Your task to perform on an android device: Clear the shopping cart on bestbuy.com. Search for beats solo 3 on bestbuy.com, select the first entry, add it to the cart, then select checkout. Image 0: 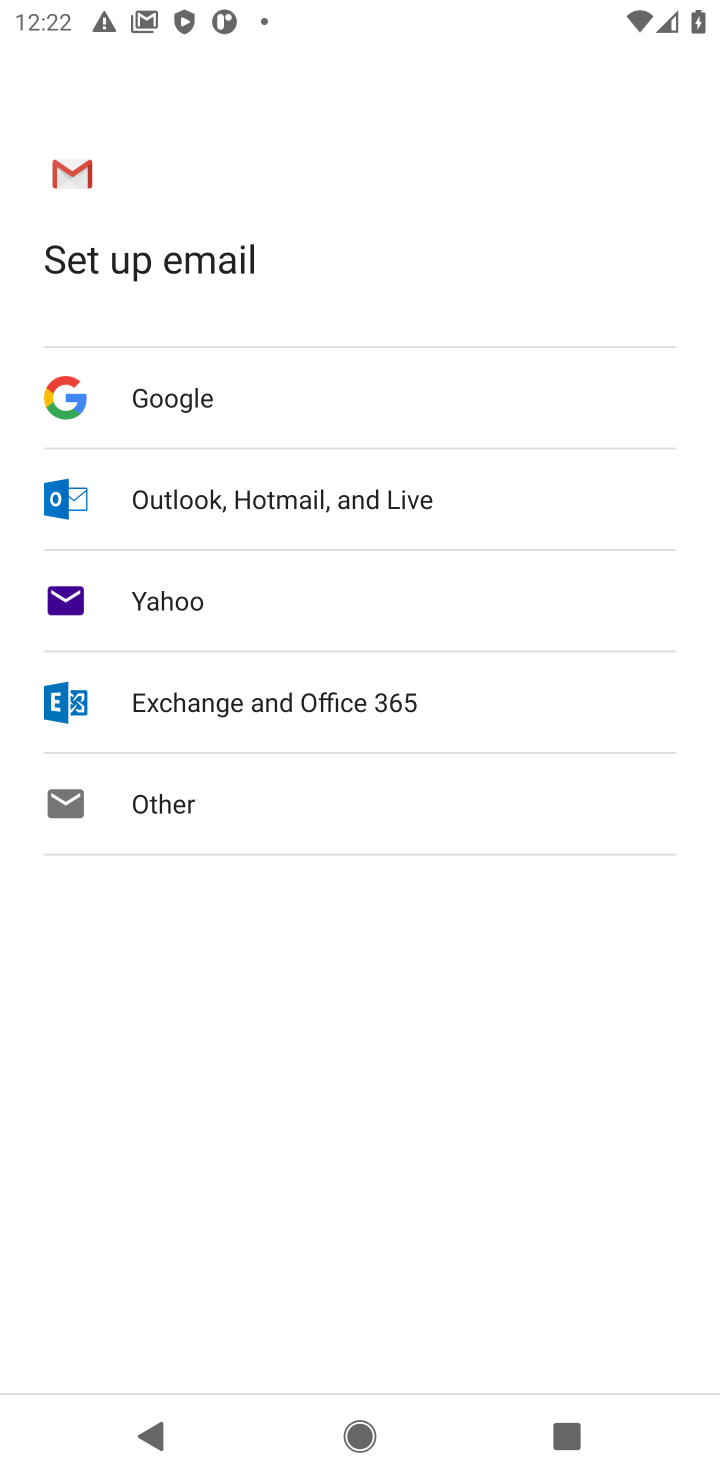
Step 0: press home button
Your task to perform on an android device: Clear the shopping cart on bestbuy.com. Search for beats solo 3 on bestbuy.com, select the first entry, add it to the cart, then select checkout. Image 1: 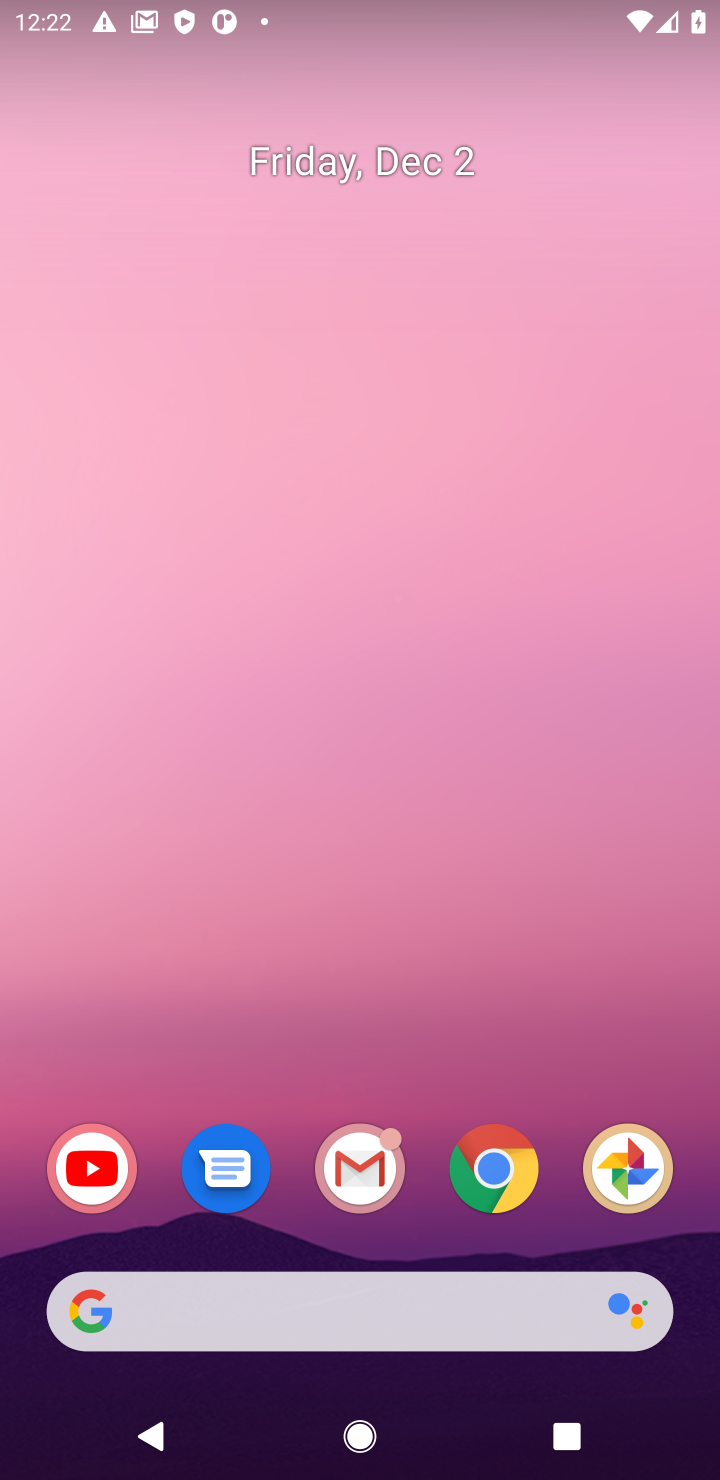
Step 1: click (501, 1189)
Your task to perform on an android device: Clear the shopping cart on bestbuy.com. Search for beats solo 3 on bestbuy.com, select the first entry, add it to the cart, then select checkout. Image 2: 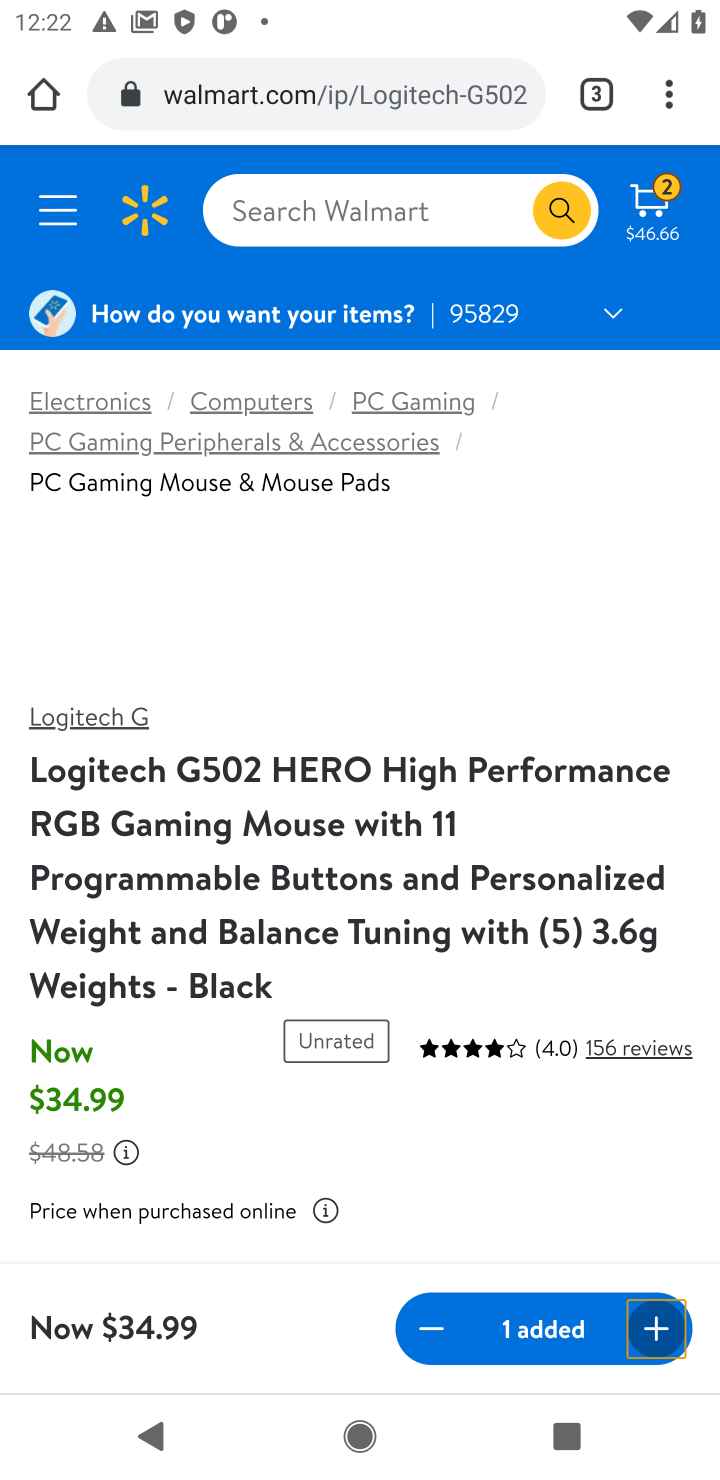
Step 2: click (333, 100)
Your task to perform on an android device: Clear the shopping cart on bestbuy.com. Search for beats solo 3 on bestbuy.com, select the first entry, add it to the cart, then select checkout. Image 3: 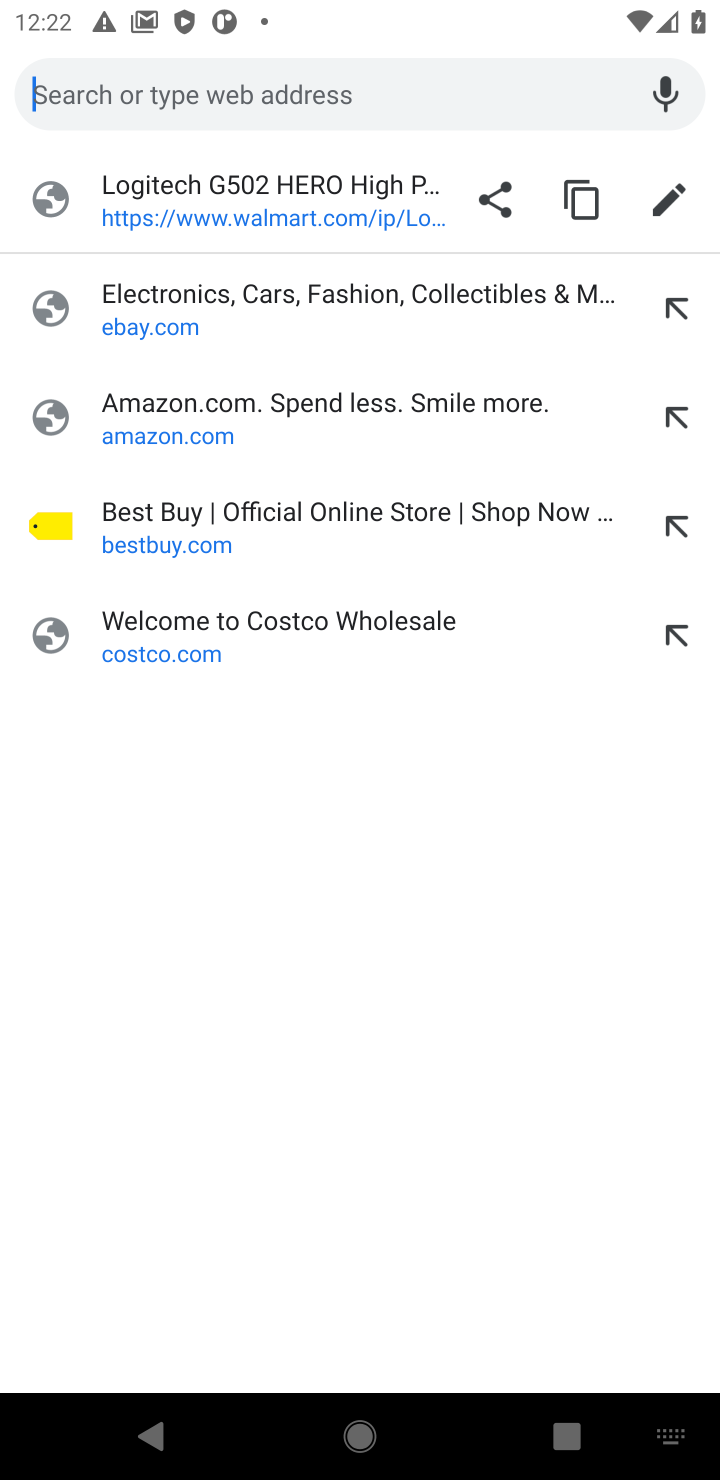
Step 3: click (140, 526)
Your task to perform on an android device: Clear the shopping cart on bestbuy.com. Search for beats solo 3 on bestbuy.com, select the first entry, add it to the cart, then select checkout. Image 4: 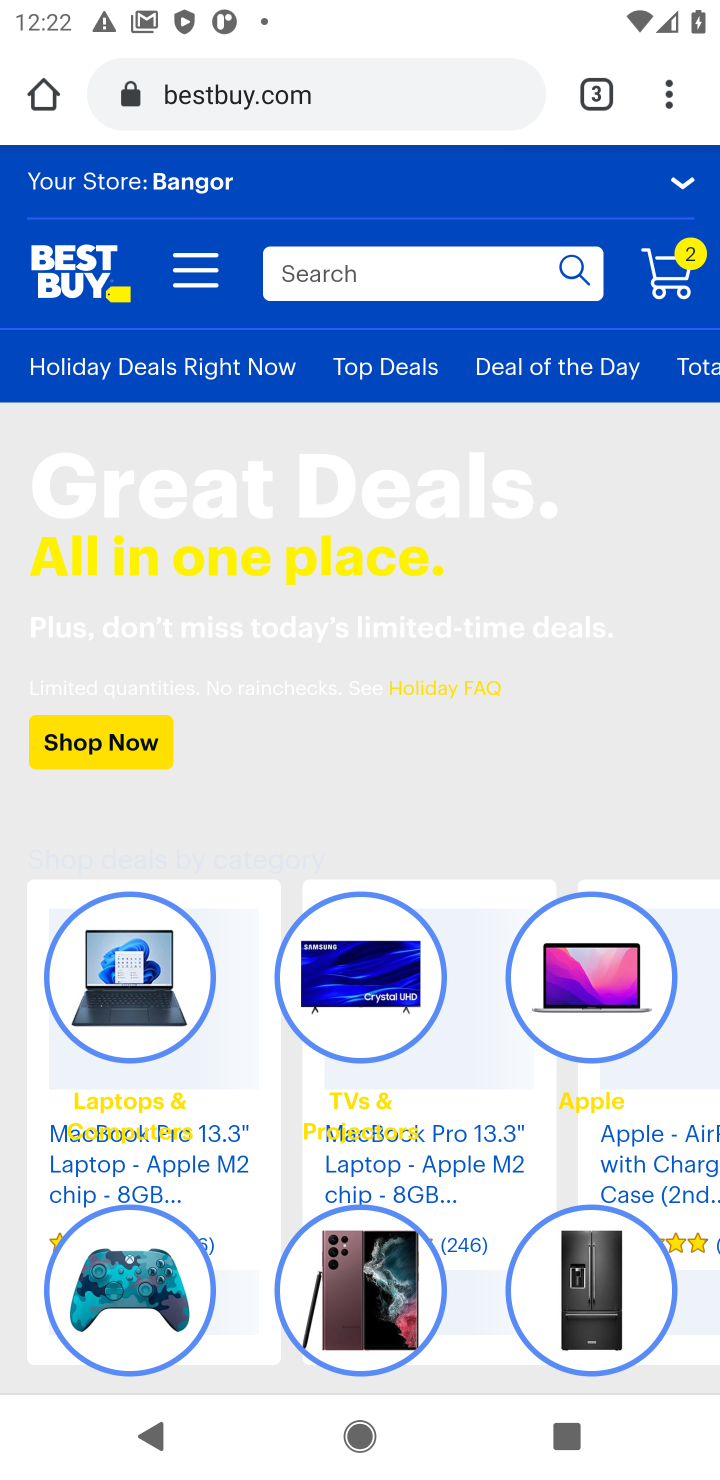
Step 4: click (668, 269)
Your task to perform on an android device: Clear the shopping cart on bestbuy.com. Search for beats solo 3 on bestbuy.com, select the first entry, add it to the cart, then select checkout. Image 5: 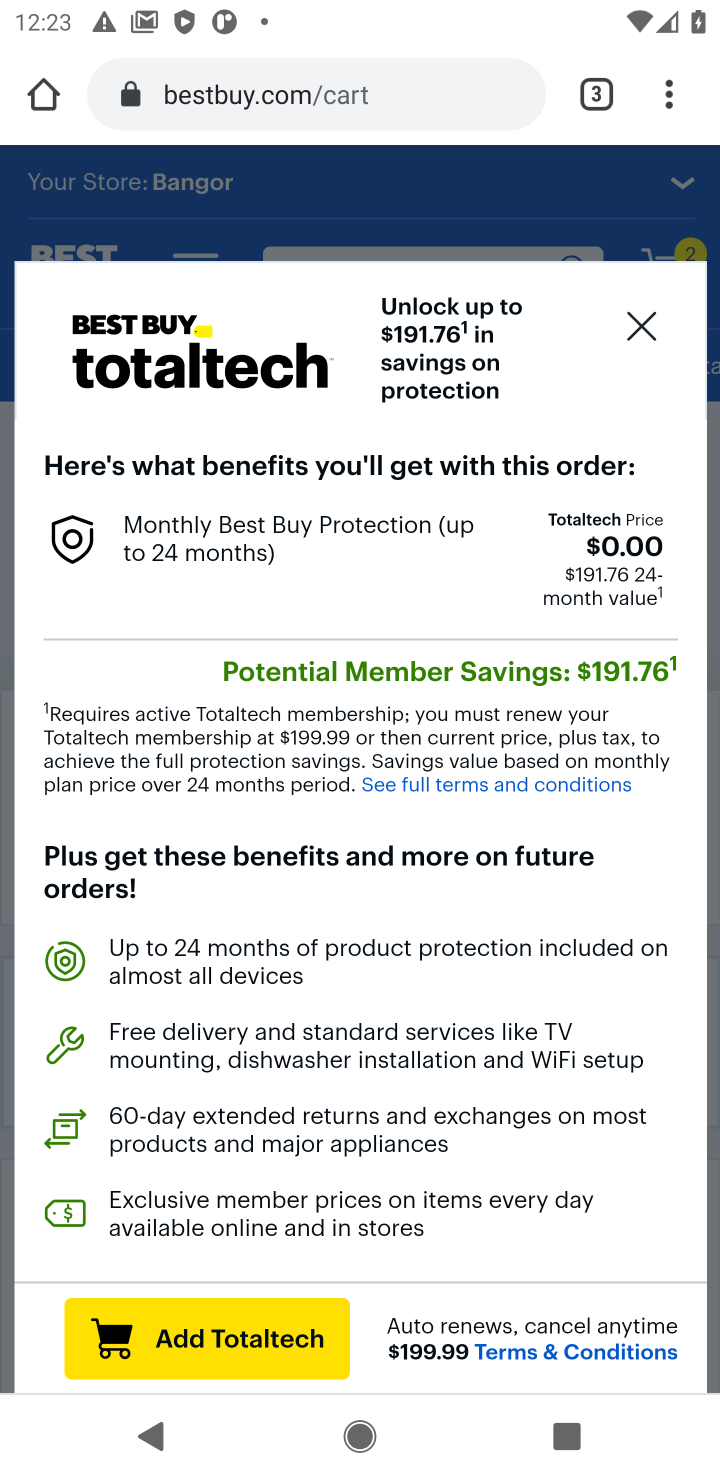
Step 5: click (629, 326)
Your task to perform on an android device: Clear the shopping cart on bestbuy.com. Search for beats solo 3 on bestbuy.com, select the first entry, add it to the cart, then select checkout. Image 6: 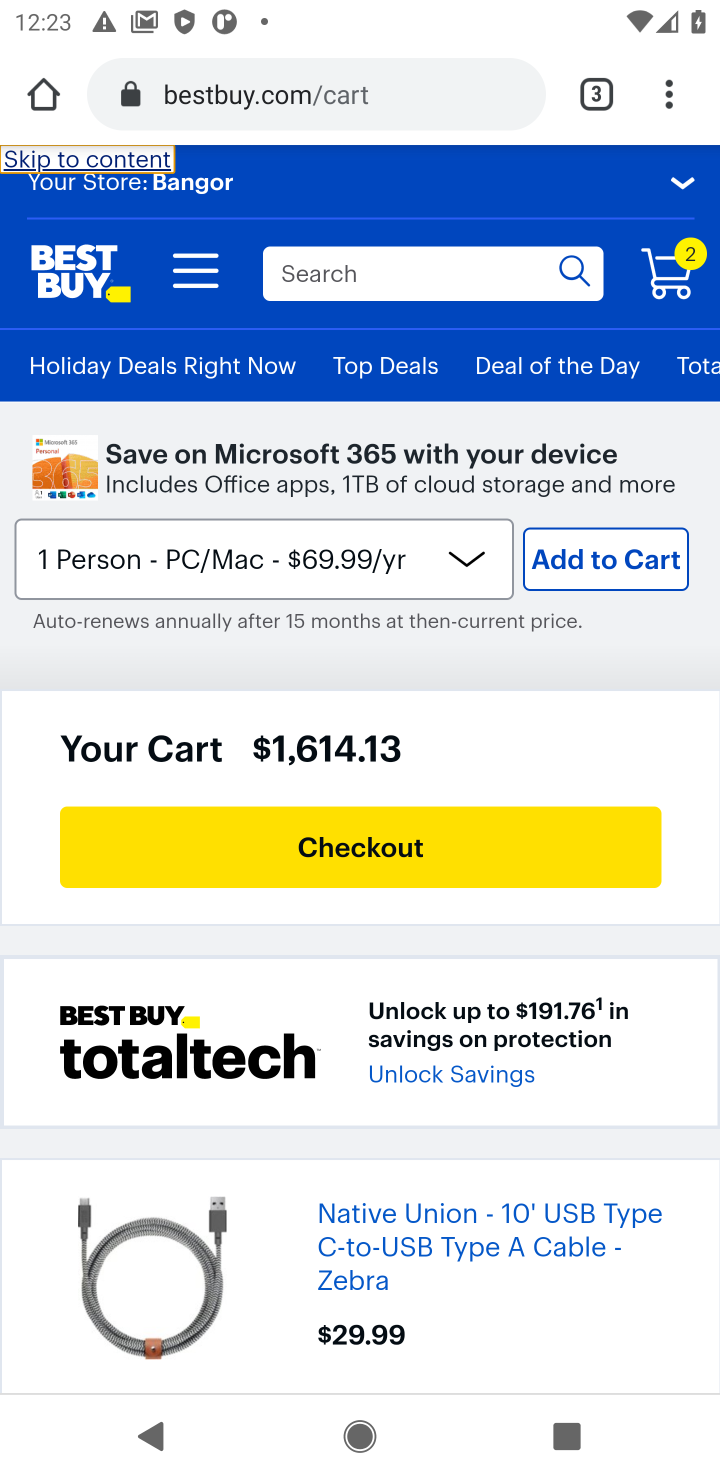
Step 6: drag from (260, 931) to (263, 443)
Your task to perform on an android device: Clear the shopping cart on bestbuy.com. Search for beats solo 3 on bestbuy.com, select the first entry, add it to the cart, then select checkout. Image 7: 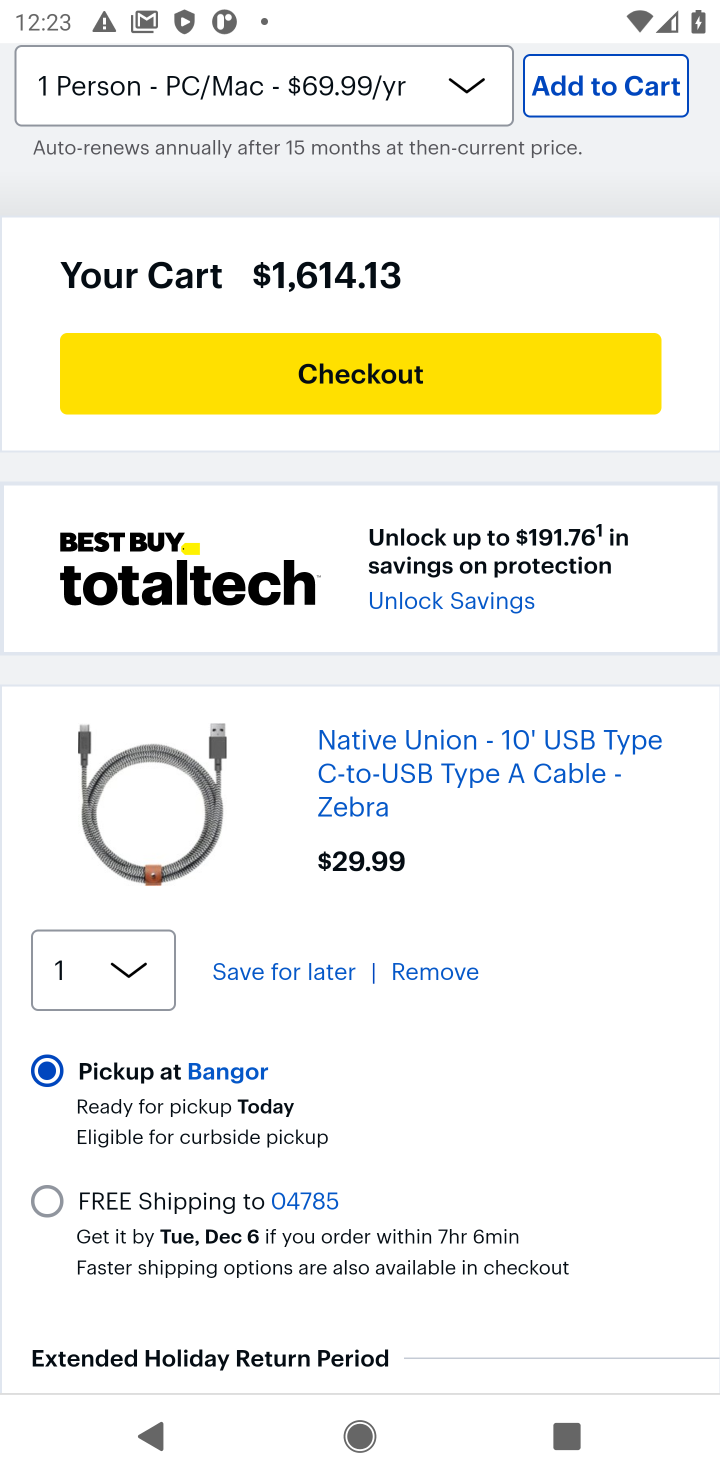
Step 7: click (420, 976)
Your task to perform on an android device: Clear the shopping cart on bestbuy.com. Search for beats solo 3 on bestbuy.com, select the first entry, add it to the cart, then select checkout. Image 8: 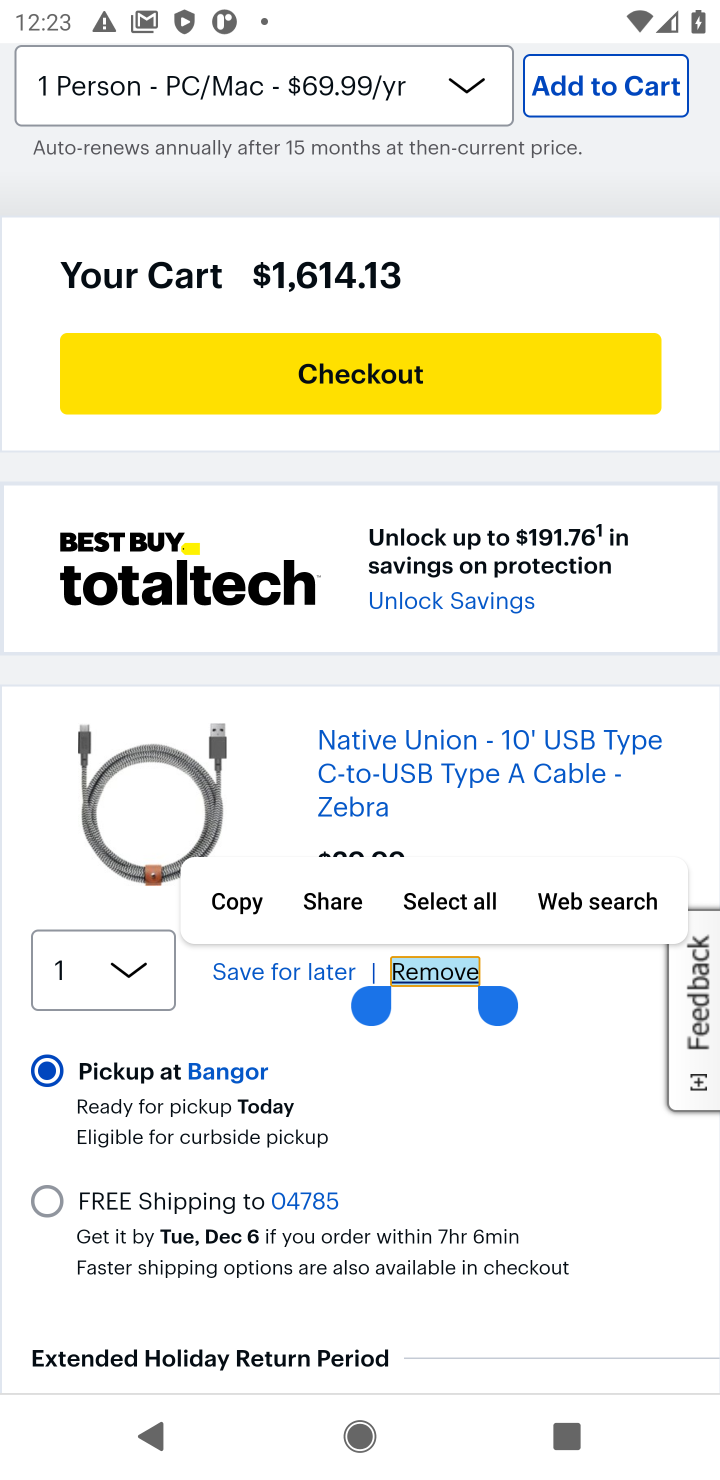
Step 8: click (420, 976)
Your task to perform on an android device: Clear the shopping cart on bestbuy.com. Search for beats solo 3 on bestbuy.com, select the first entry, add it to the cart, then select checkout. Image 9: 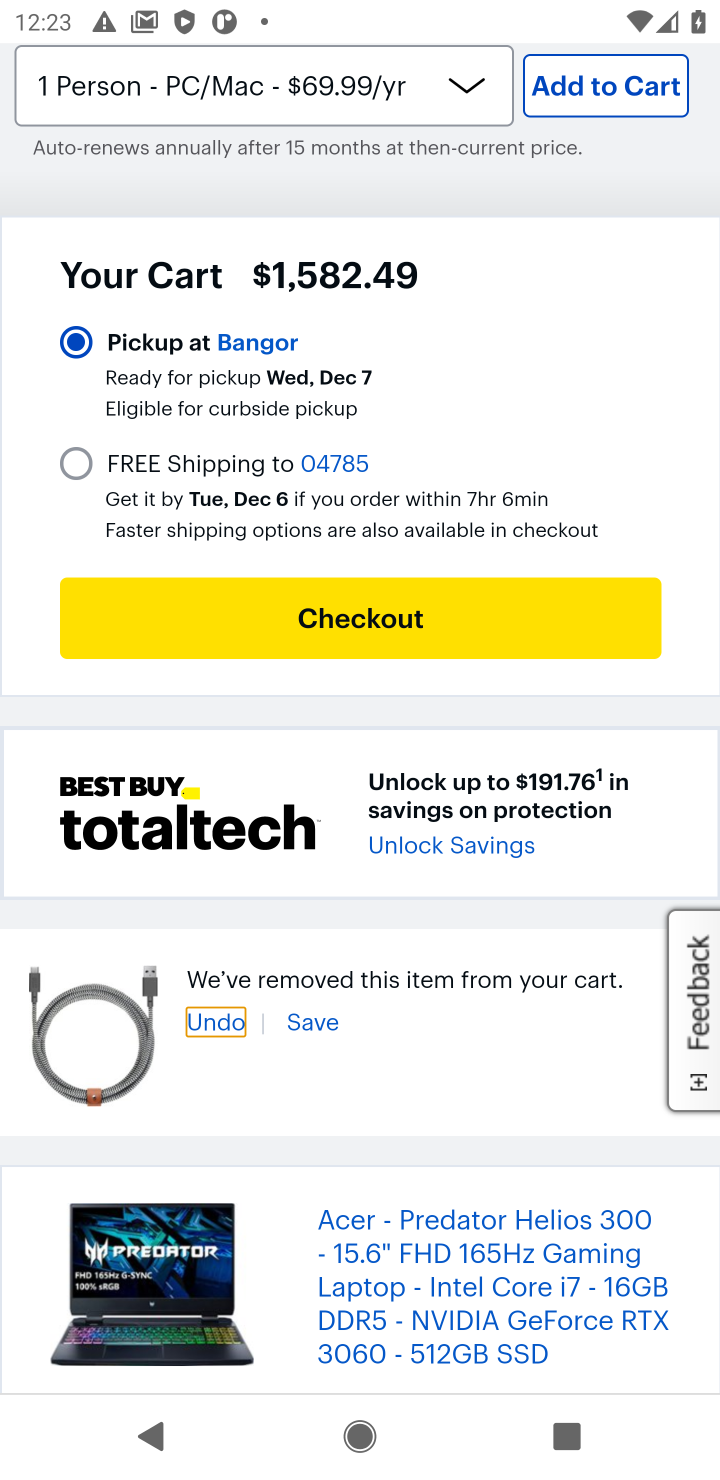
Step 9: drag from (401, 959) to (401, 304)
Your task to perform on an android device: Clear the shopping cart on bestbuy.com. Search for beats solo 3 on bestbuy.com, select the first entry, add it to the cart, then select checkout. Image 10: 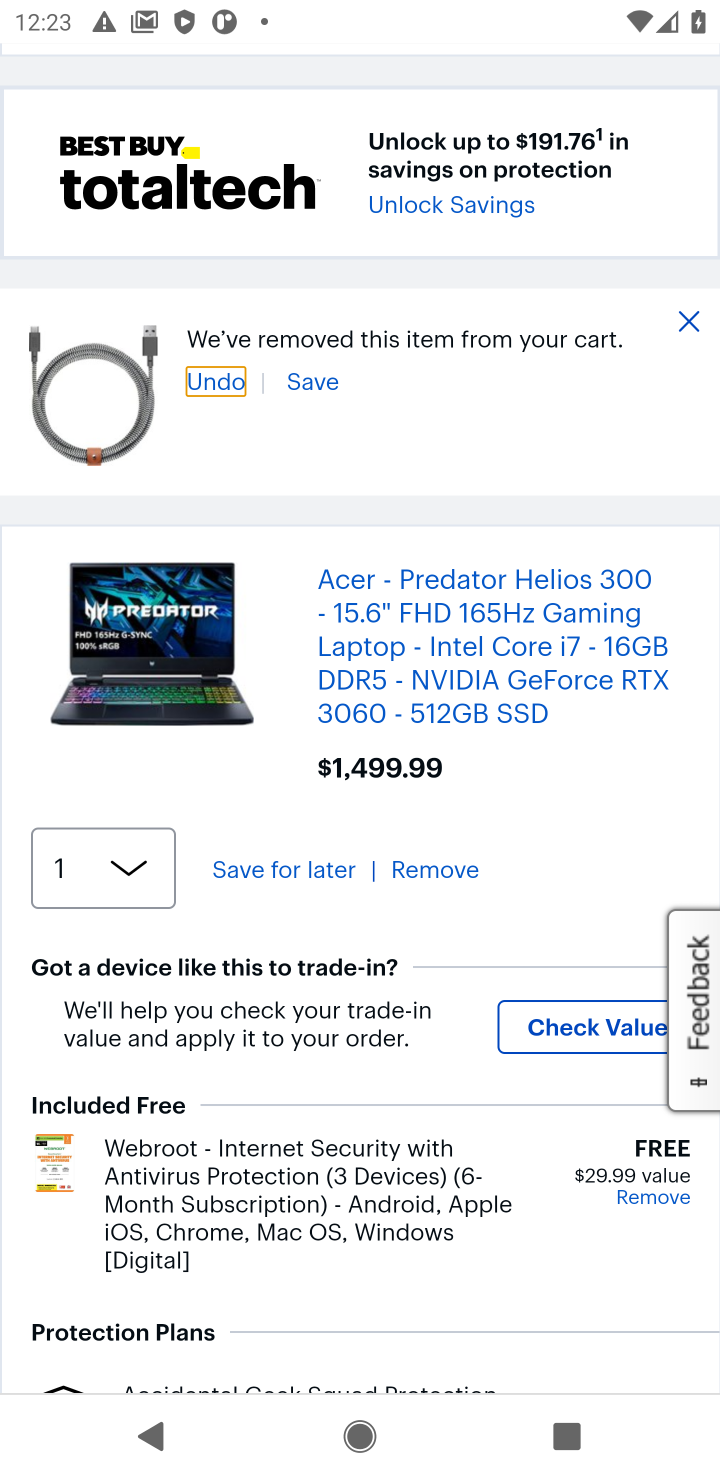
Step 10: click (416, 878)
Your task to perform on an android device: Clear the shopping cart on bestbuy.com. Search for beats solo 3 on bestbuy.com, select the first entry, add it to the cart, then select checkout. Image 11: 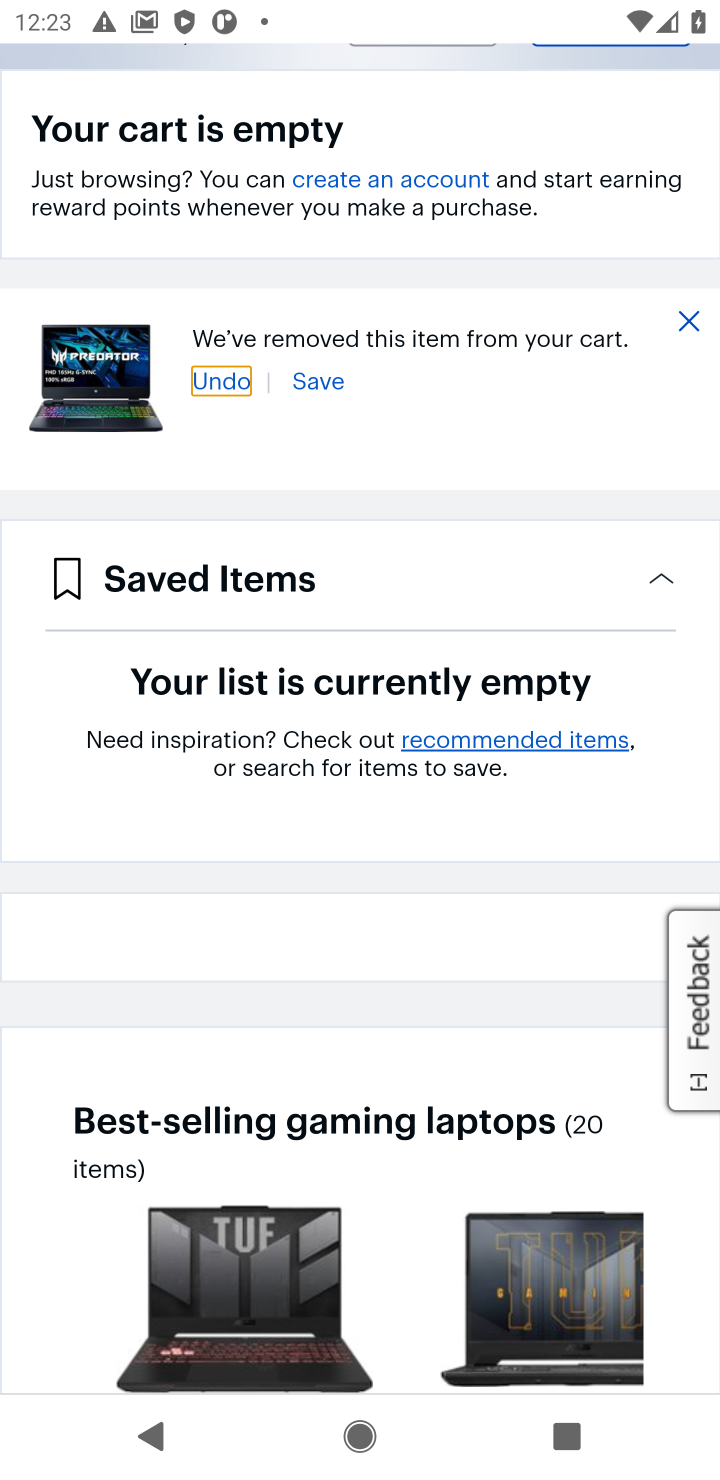
Step 11: drag from (414, 291) to (382, 901)
Your task to perform on an android device: Clear the shopping cart on bestbuy.com. Search for beats solo 3 on bestbuy.com, select the first entry, add it to the cart, then select checkout. Image 12: 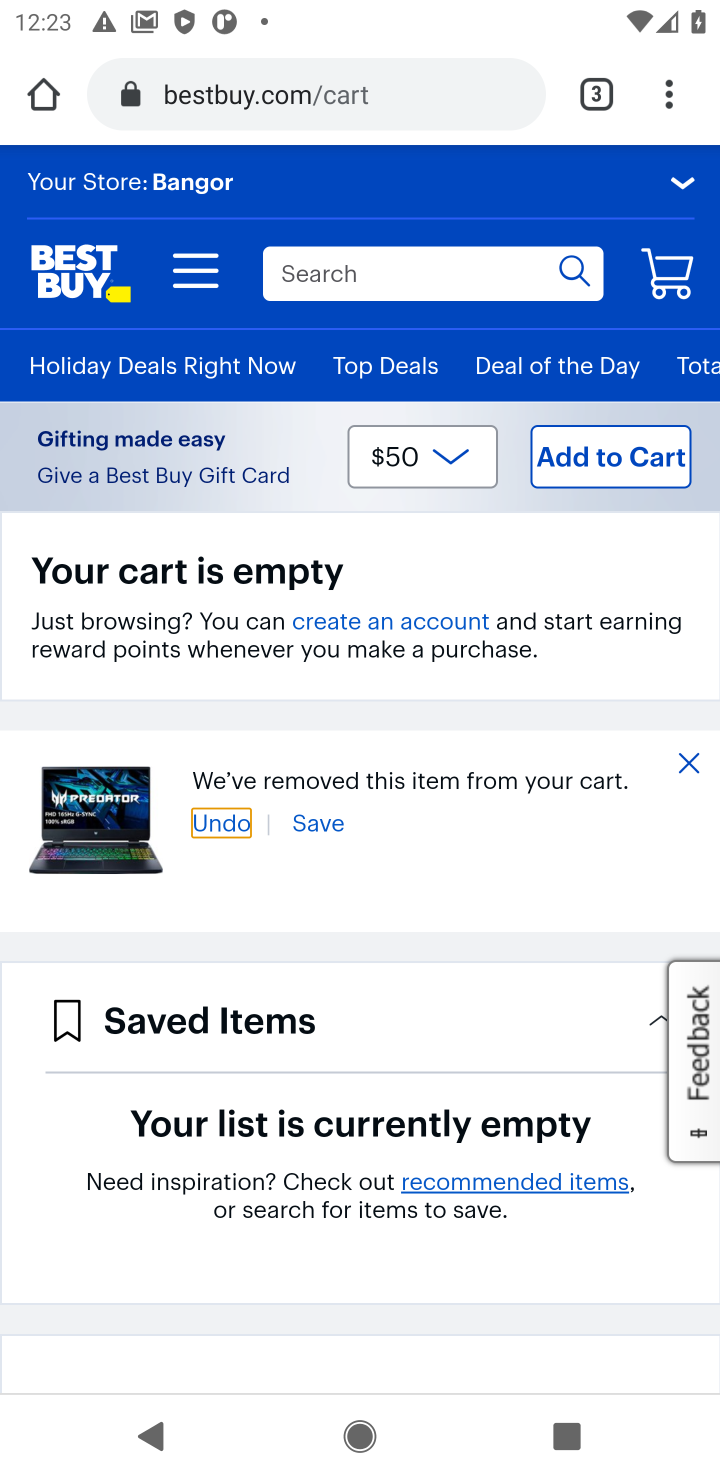
Step 12: click (299, 277)
Your task to perform on an android device: Clear the shopping cart on bestbuy.com. Search for beats solo 3 on bestbuy.com, select the first entry, add it to the cart, then select checkout. Image 13: 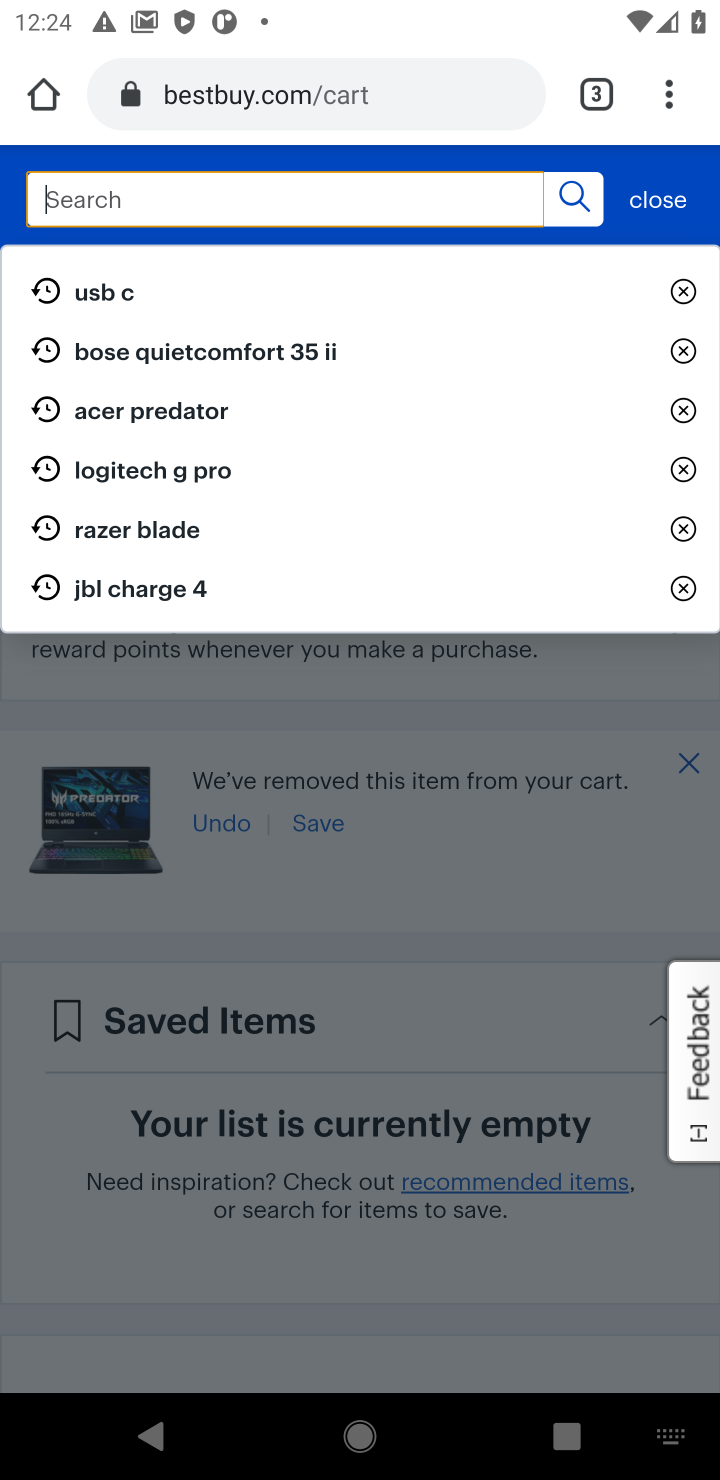
Step 13: type "beats solo 3"
Your task to perform on an android device: Clear the shopping cart on bestbuy.com. Search for beats solo 3 on bestbuy.com, select the first entry, add it to the cart, then select checkout. Image 14: 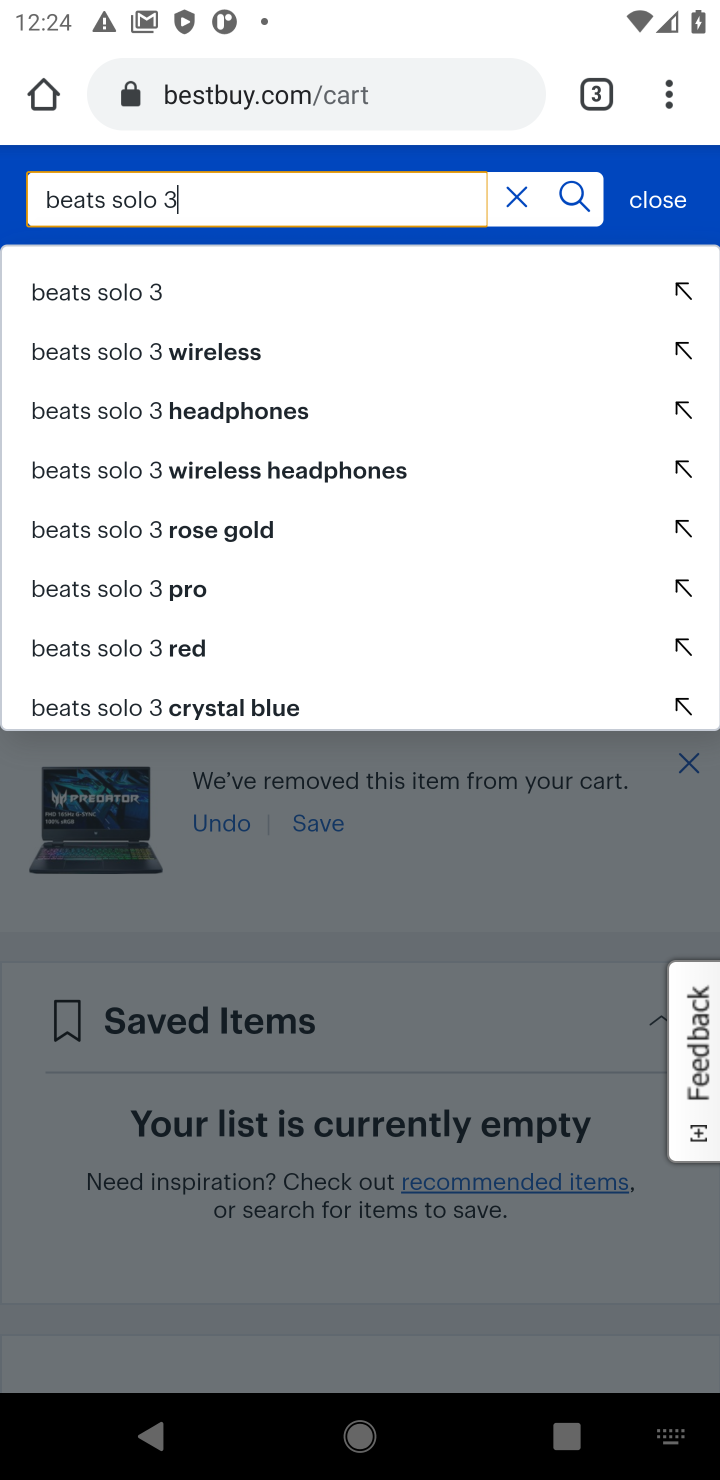
Step 14: click (132, 300)
Your task to perform on an android device: Clear the shopping cart on bestbuy.com. Search for beats solo 3 on bestbuy.com, select the first entry, add it to the cart, then select checkout. Image 15: 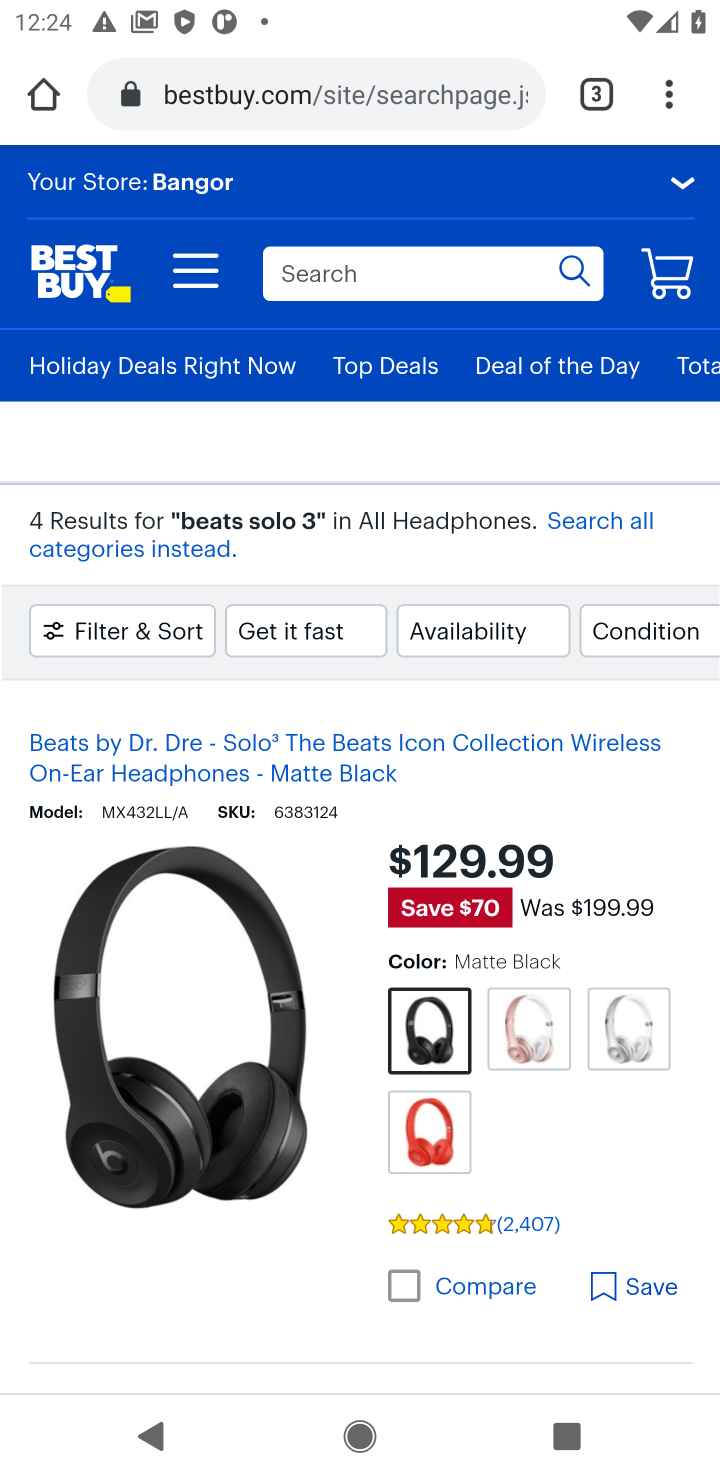
Step 15: drag from (332, 789) to (331, 491)
Your task to perform on an android device: Clear the shopping cart on bestbuy.com. Search for beats solo 3 on bestbuy.com, select the first entry, add it to the cart, then select checkout. Image 16: 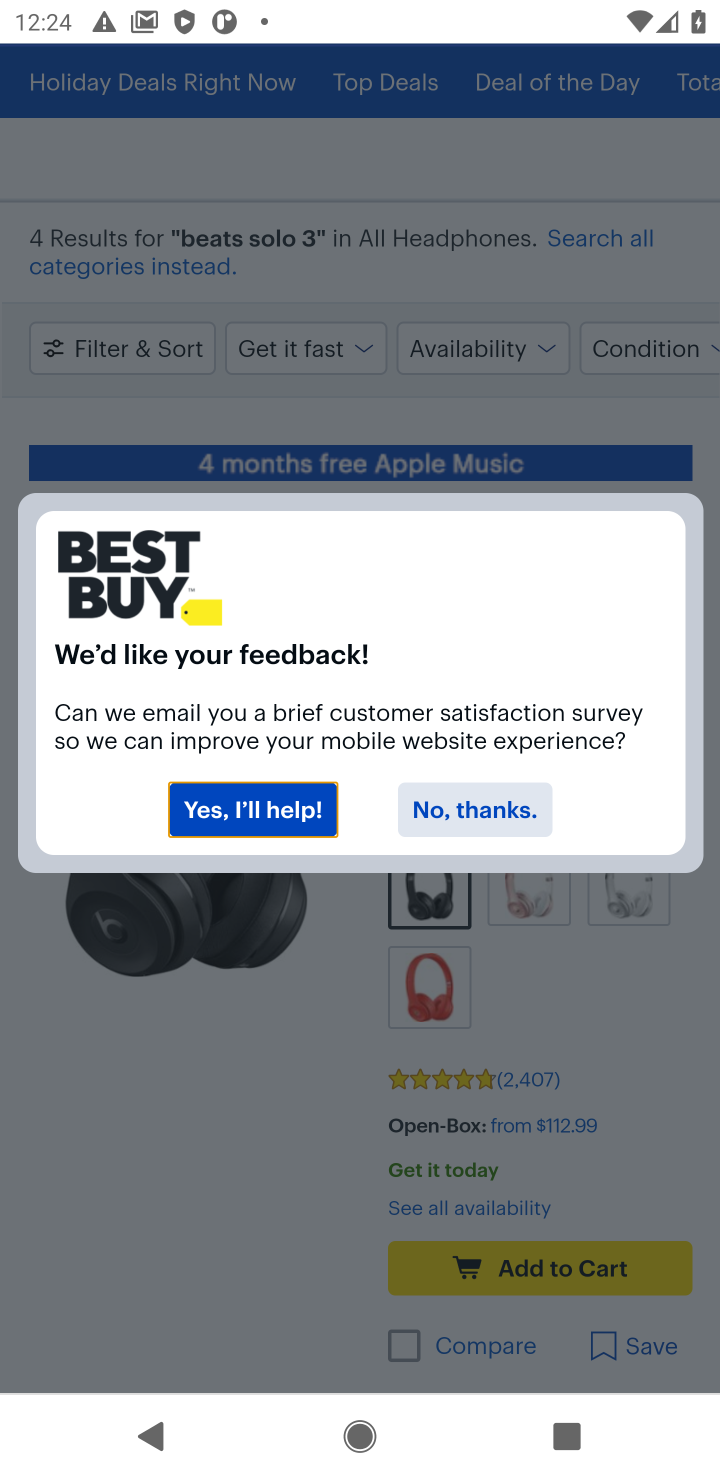
Step 16: click (464, 815)
Your task to perform on an android device: Clear the shopping cart on bestbuy.com. Search for beats solo 3 on bestbuy.com, select the first entry, add it to the cart, then select checkout. Image 17: 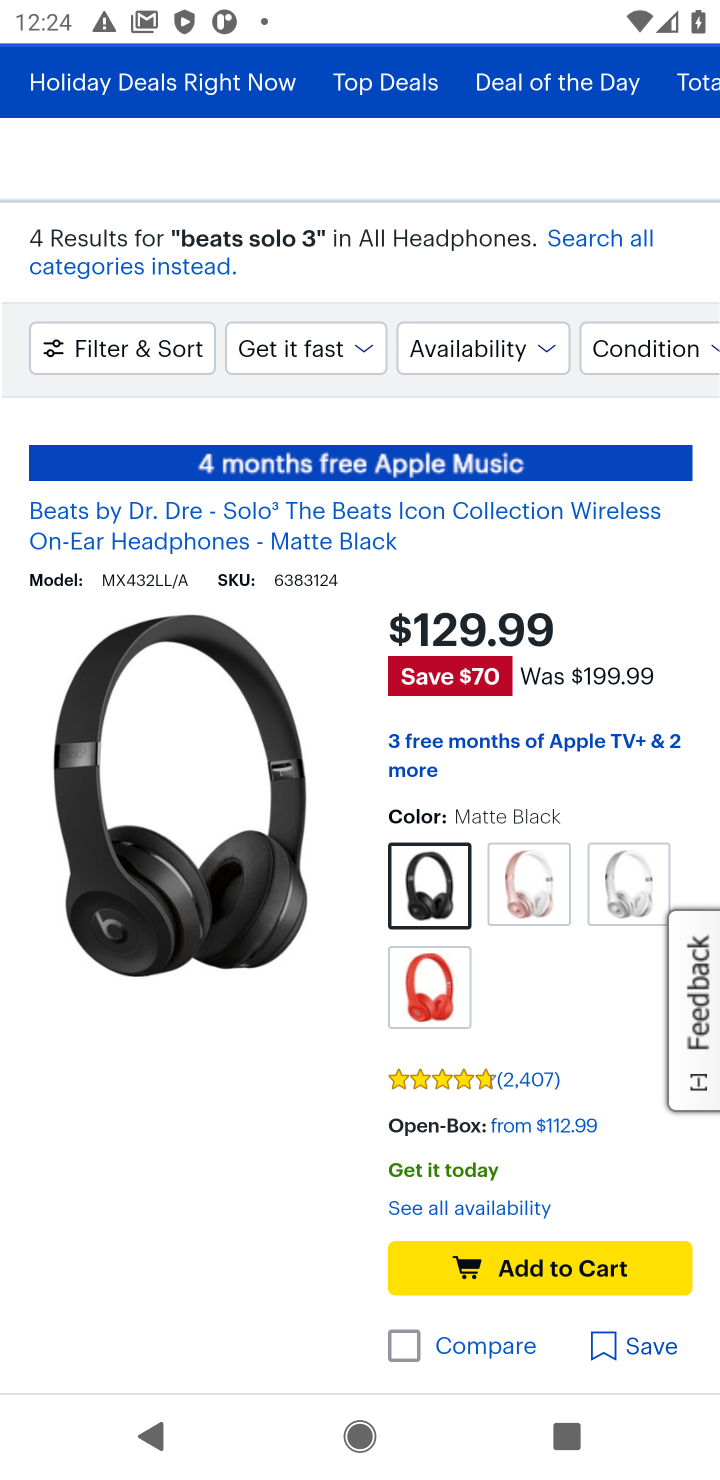
Step 17: click (493, 1272)
Your task to perform on an android device: Clear the shopping cart on bestbuy.com. Search for beats solo 3 on bestbuy.com, select the first entry, add it to the cart, then select checkout. Image 18: 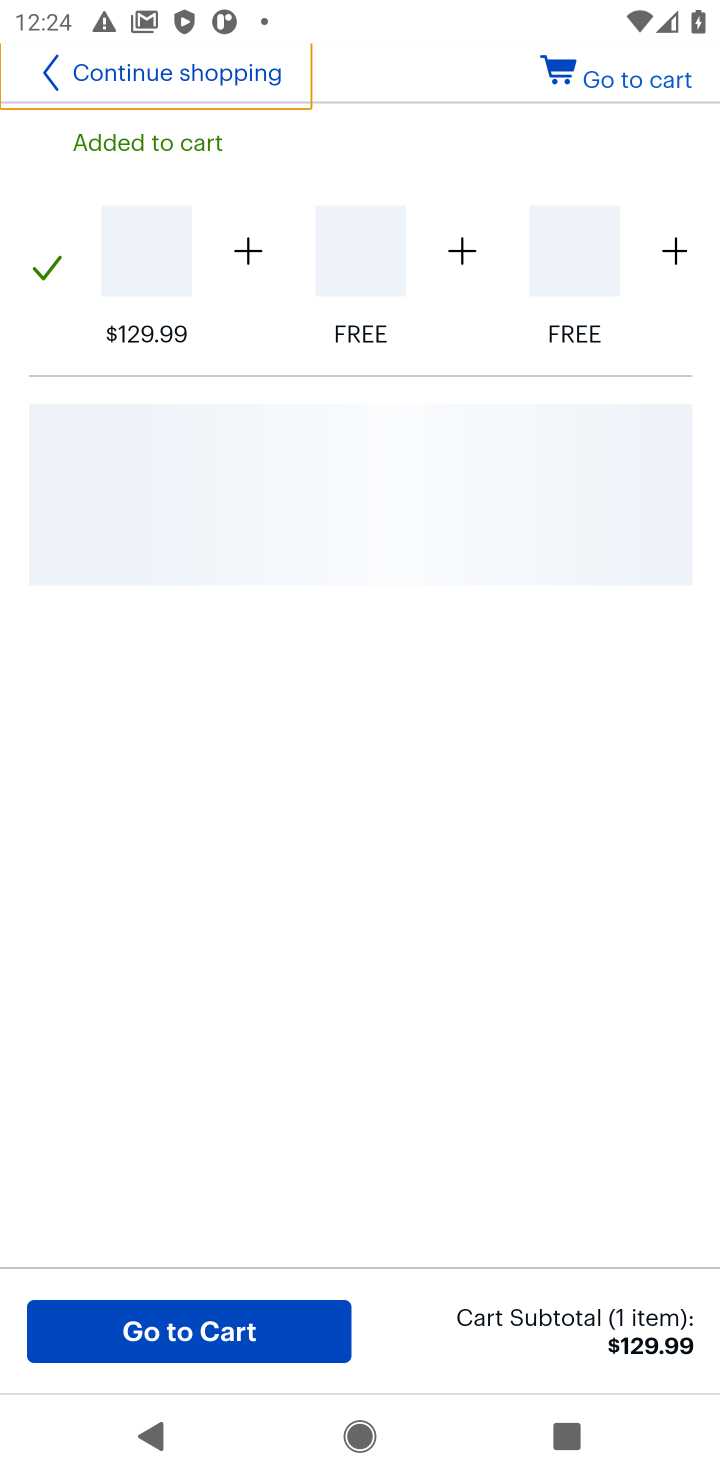
Step 18: click (628, 83)
Your task to perform on an android device: Clear the shopping cart on bestbuy.com. Search for beats solo 3 on bestbuy.com, select the first entry, add it to the cart, then select checkout. Image 19: 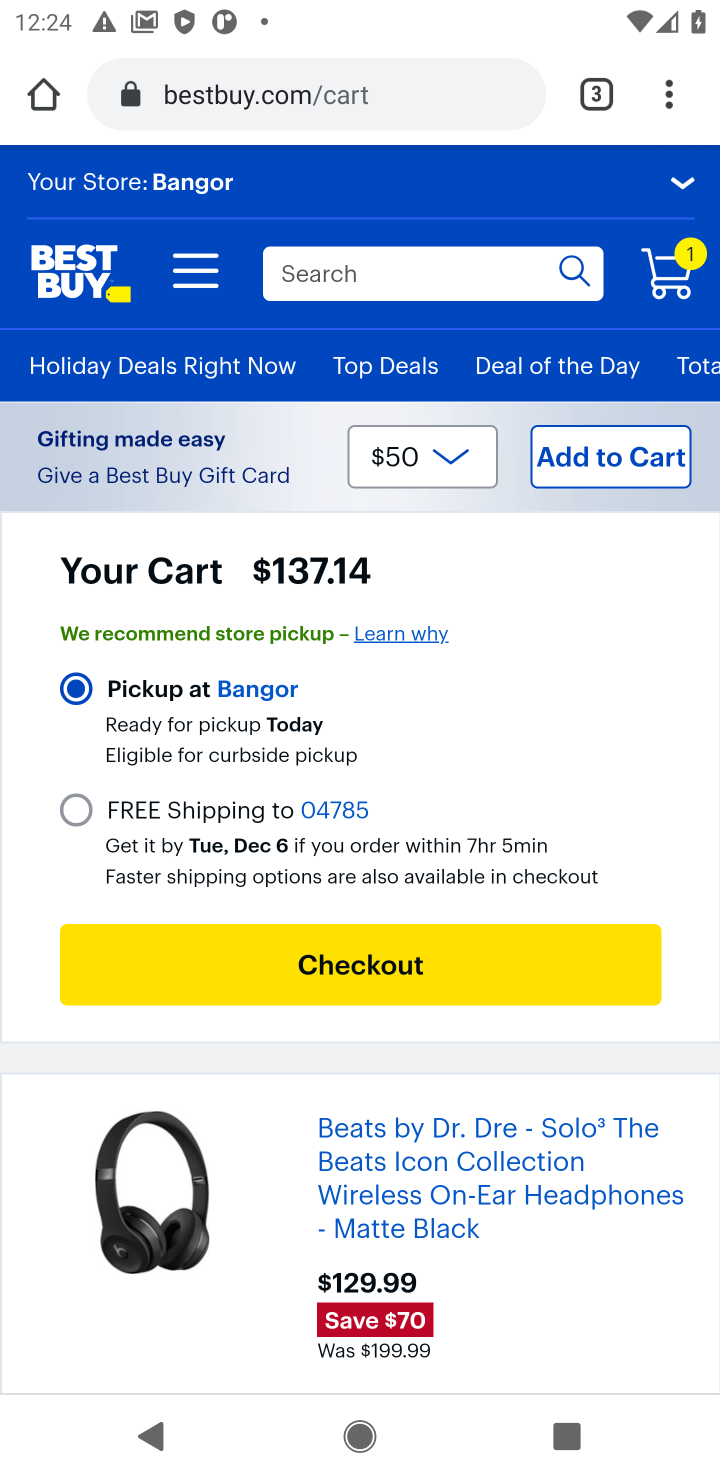
Step 19: click (317, 963)
Your task to perform on an android device: Clear the shopping cart on bestbuy.com. Search for beats solo 3 on bestbuy.com, select the first entry, add it to the cart, then select checkout. Image 20: 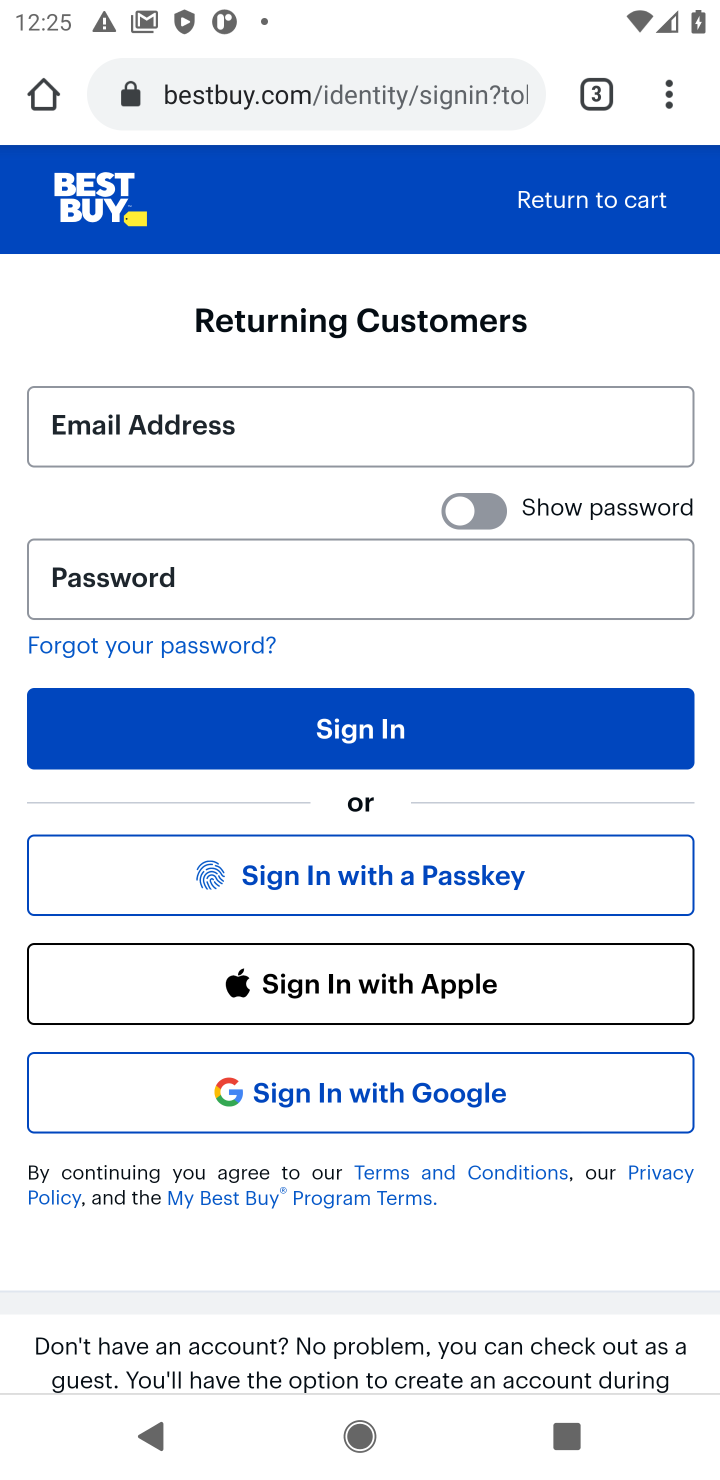
Step 20: task complete